Your task to perform on an android device: refresh tabs in the chrome app Image 0: 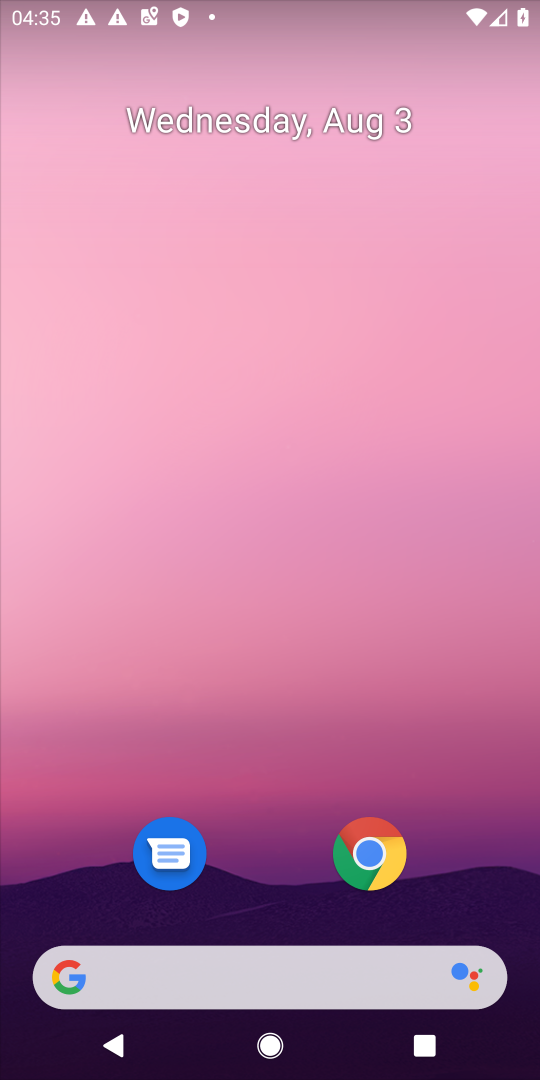
Step 0: drag from (507, 880) to (432, 17)
Your task to perform on an android device: refresh tabs in the chrome app Image 1: 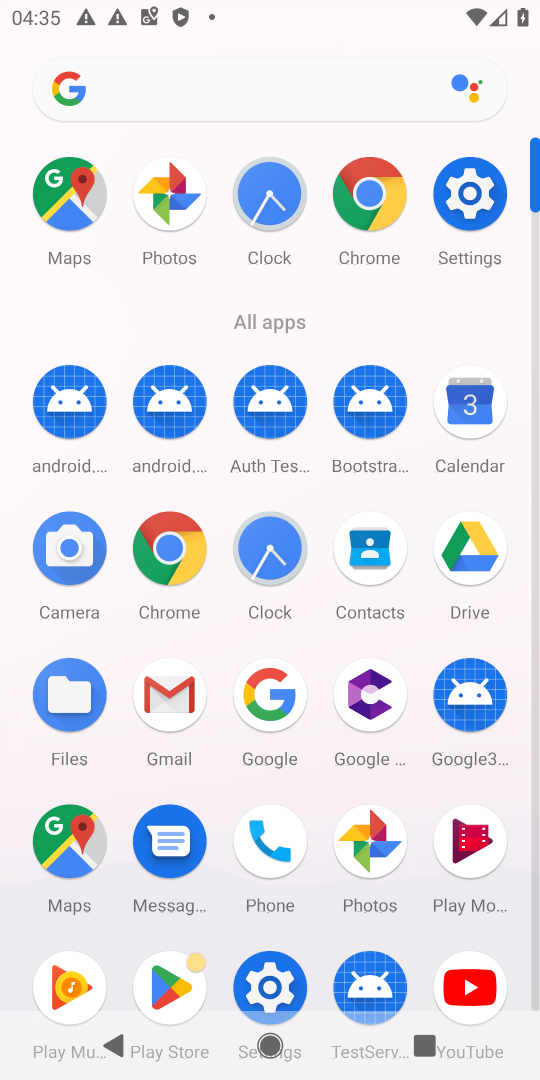
Step 1: click (363, 215)
Your task to perform on an android device: refresh tabs in the chrome app Image 2: 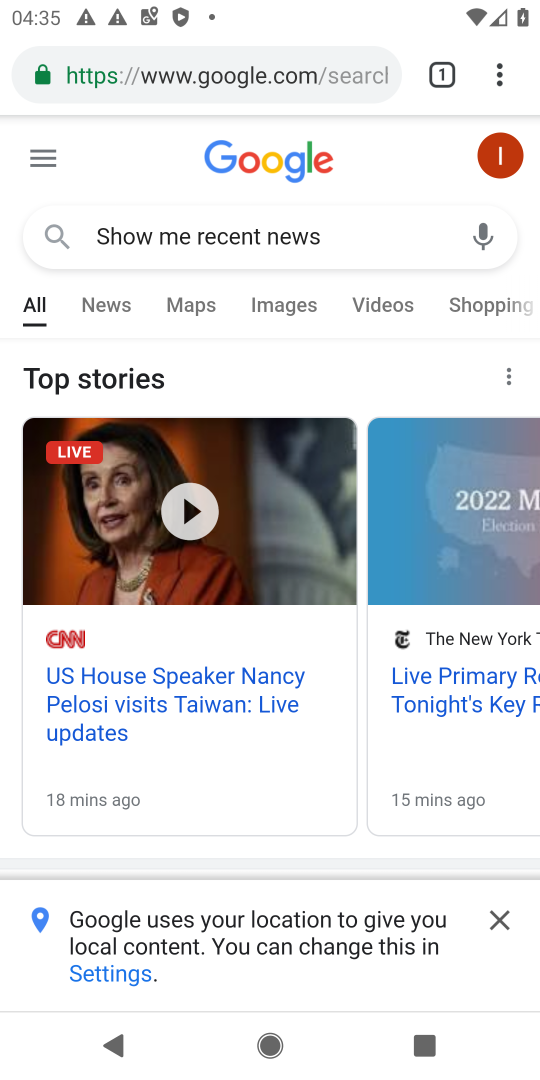
Step 2: click (508, 74)
Your task to perform on an android device: refresh tabs in the chrome app Image 3: 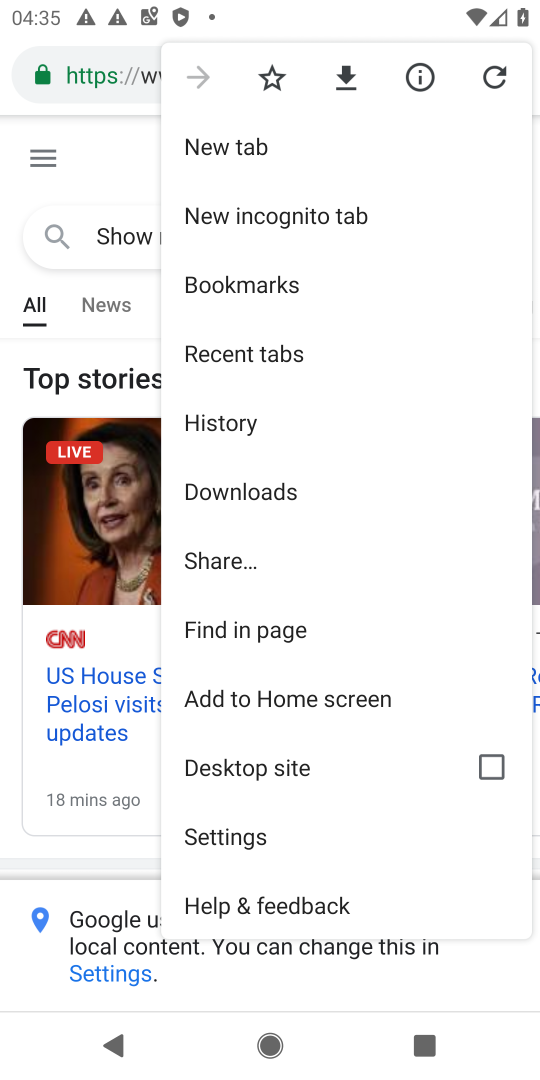
Step 3: click (487, 83)
Your task to perform on an android device: refresh tabs in the chrome app Image 4: 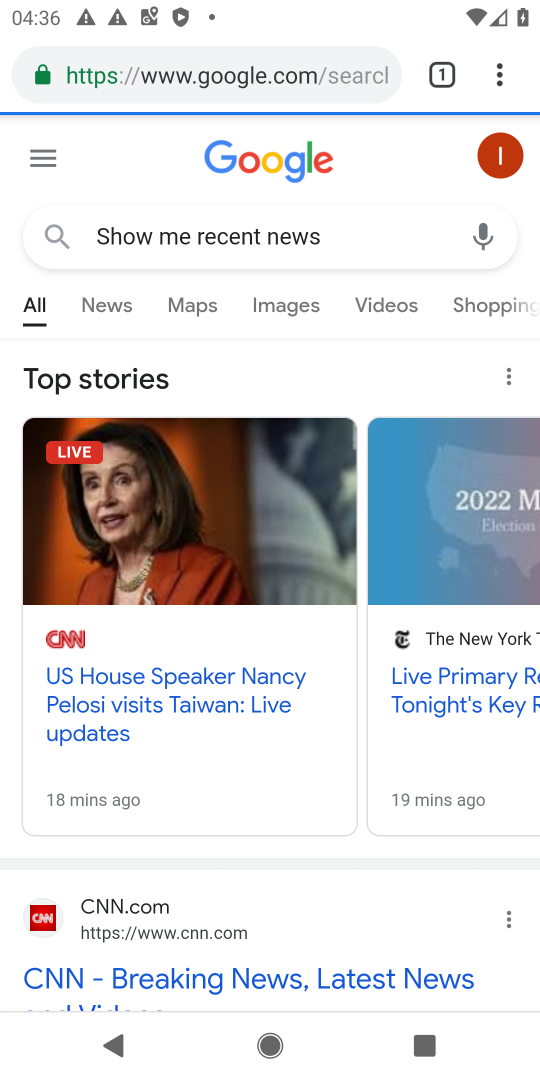
Step 4: task complete